Your task to perform on an android device: open app "Reddit" Image 0: 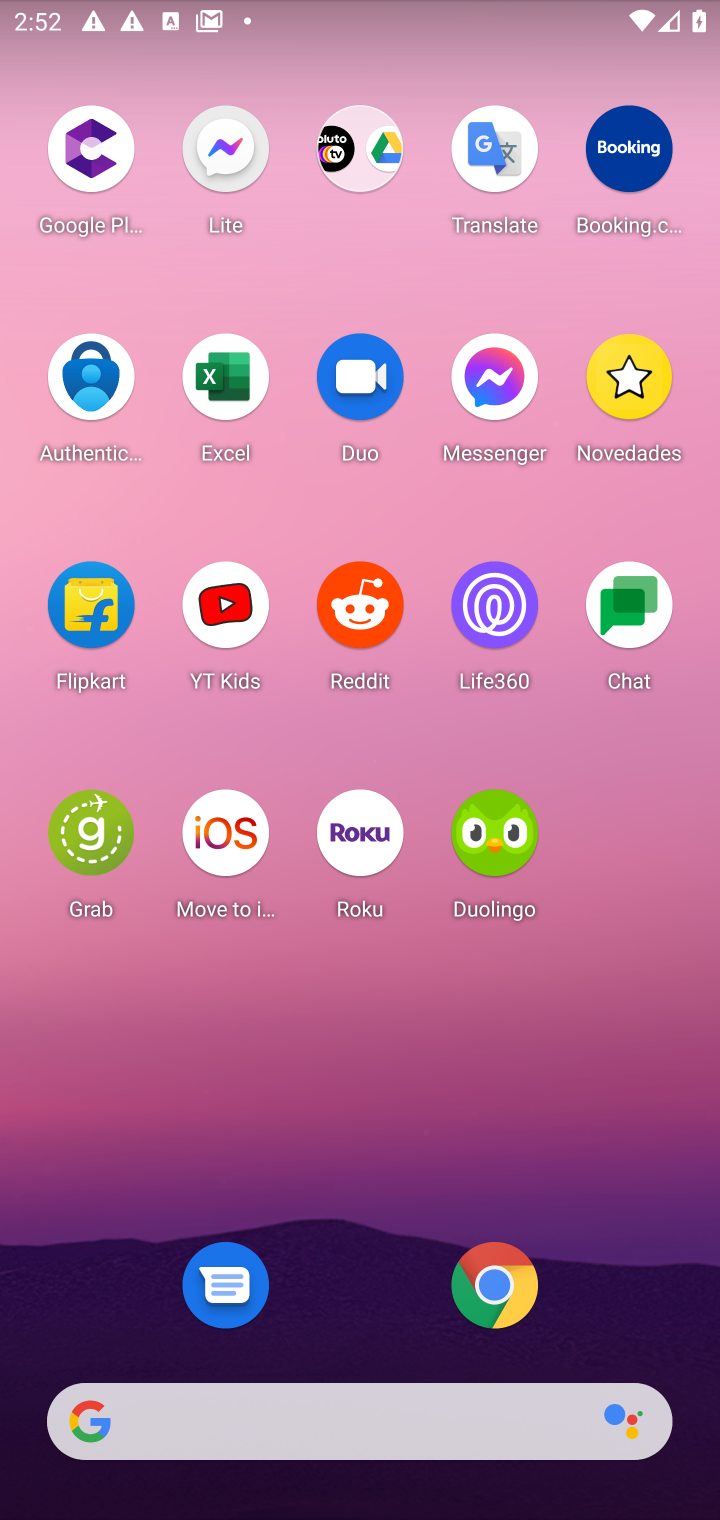
Step 0: drag from (323, 1050) to (275, 77)
Your task to perform on an android device: open app "Reddit" Image 1: 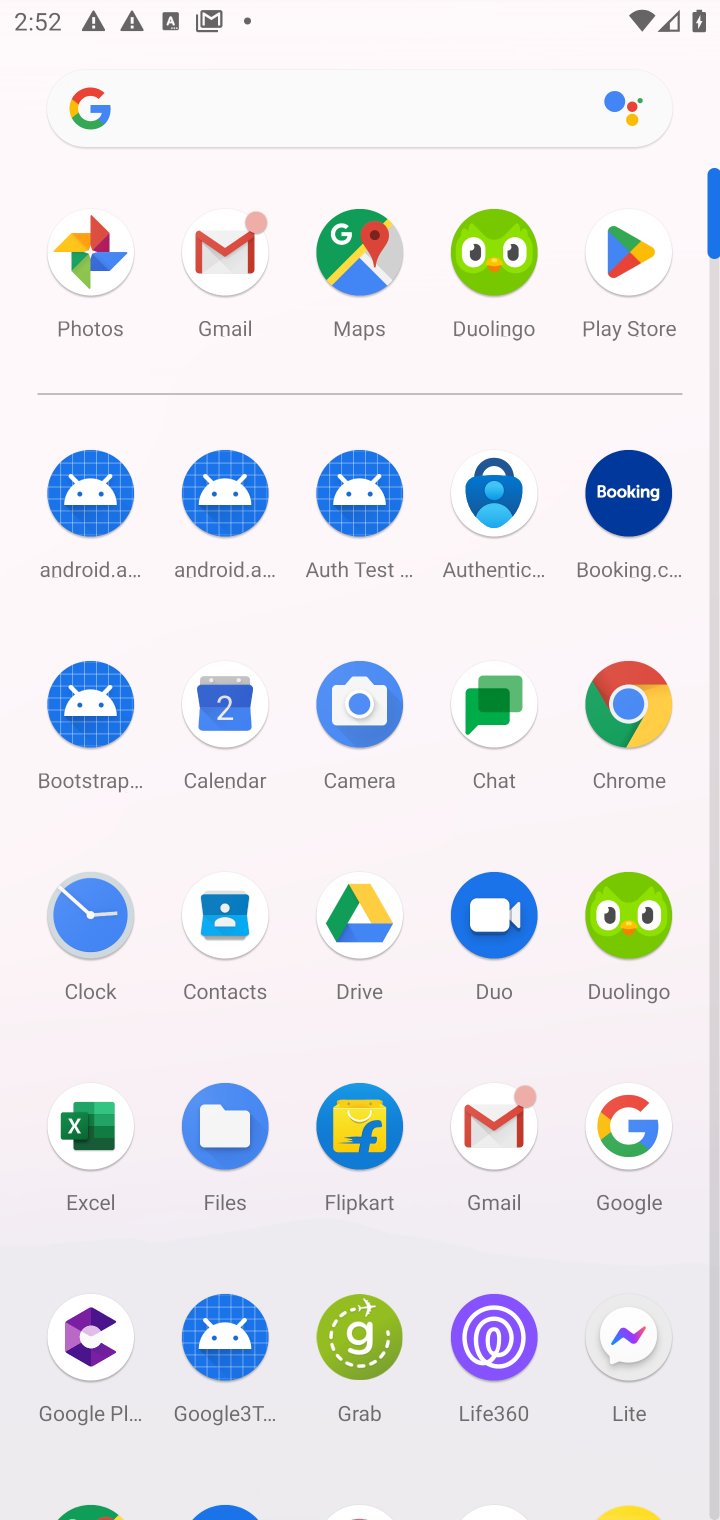
Step 1: drag from (409, 1241) to (447, 226)
Your task to perform on an android device: open app "Reddit" Image 2: 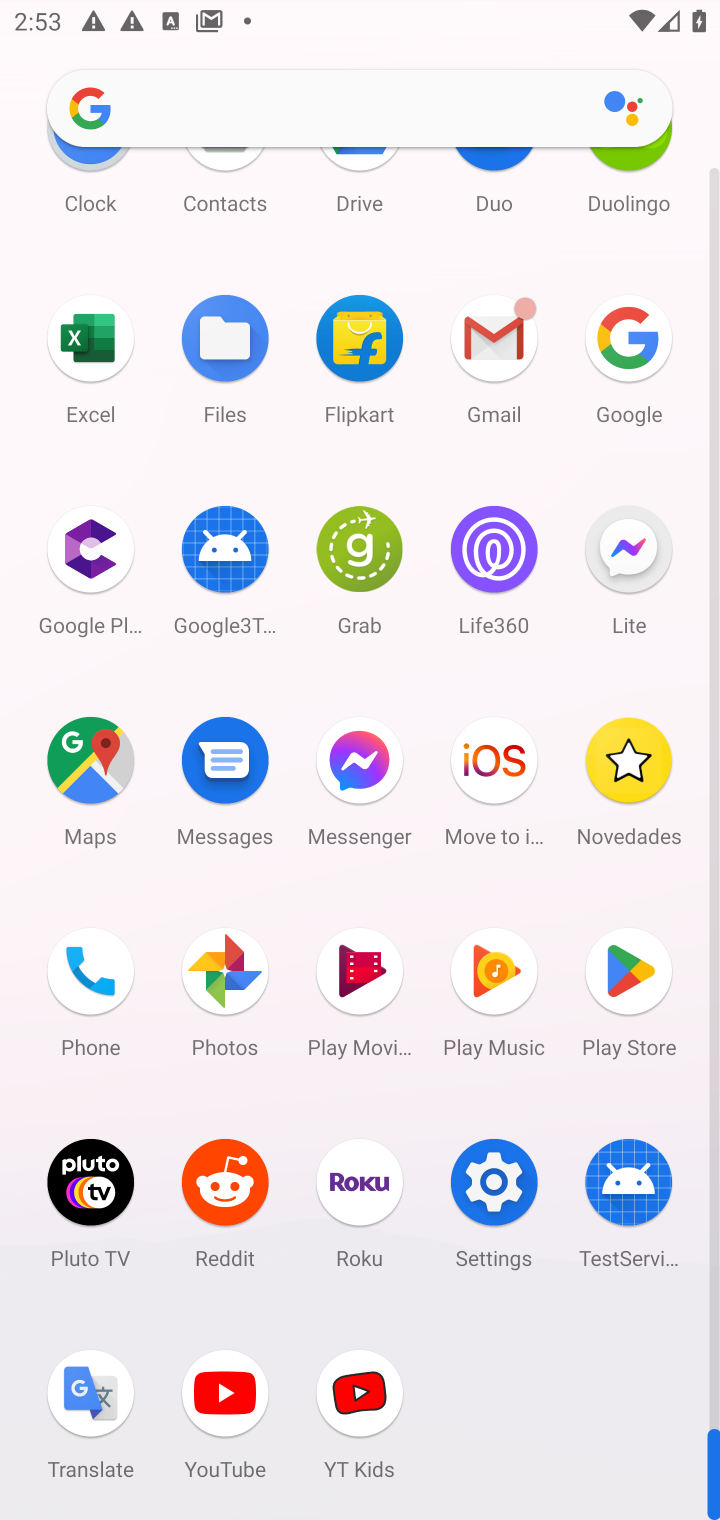
Step 2: click (644, 964)
Your task to perform on an android device: open app "Reddit" Image 3: 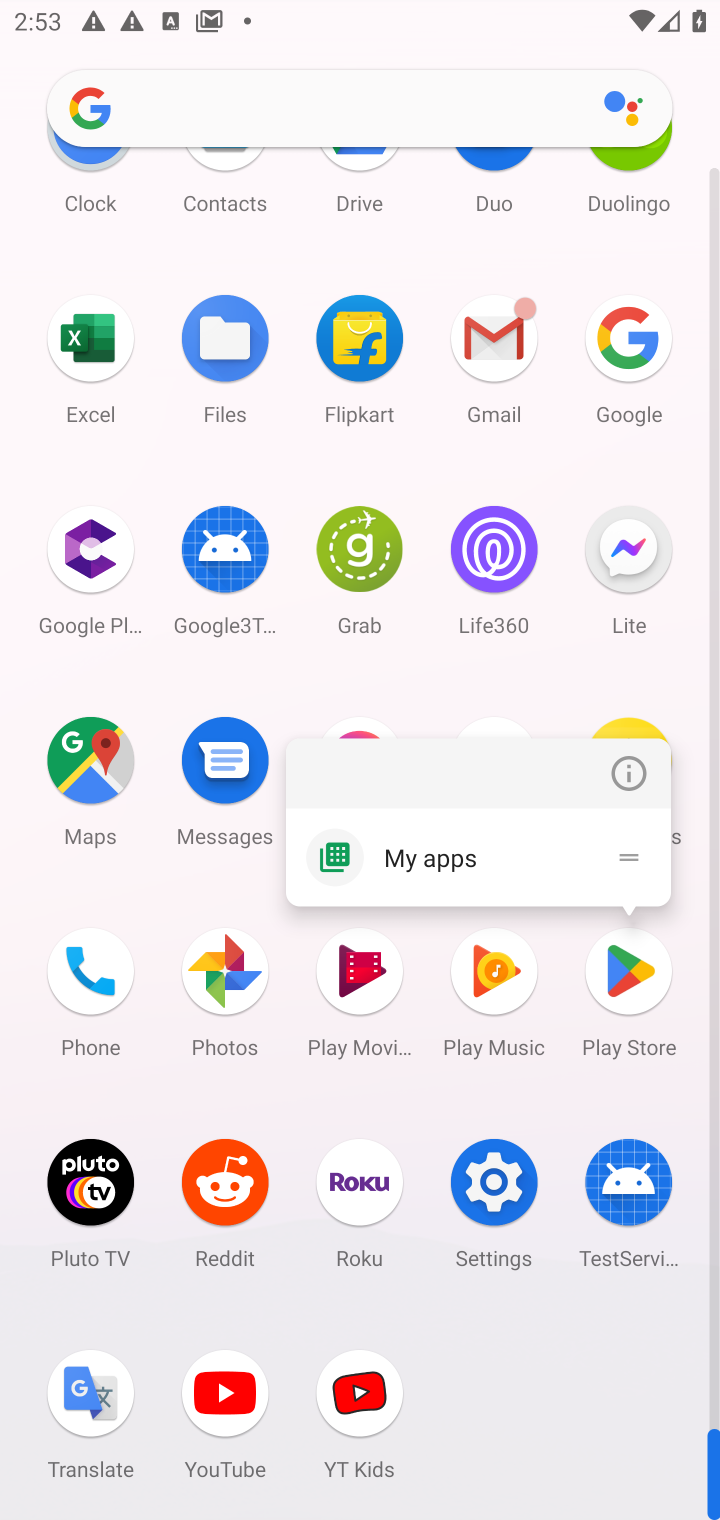
Step 3: click (614, 954)
Your task to perform on an android device: open app "Reddit" Image 4: 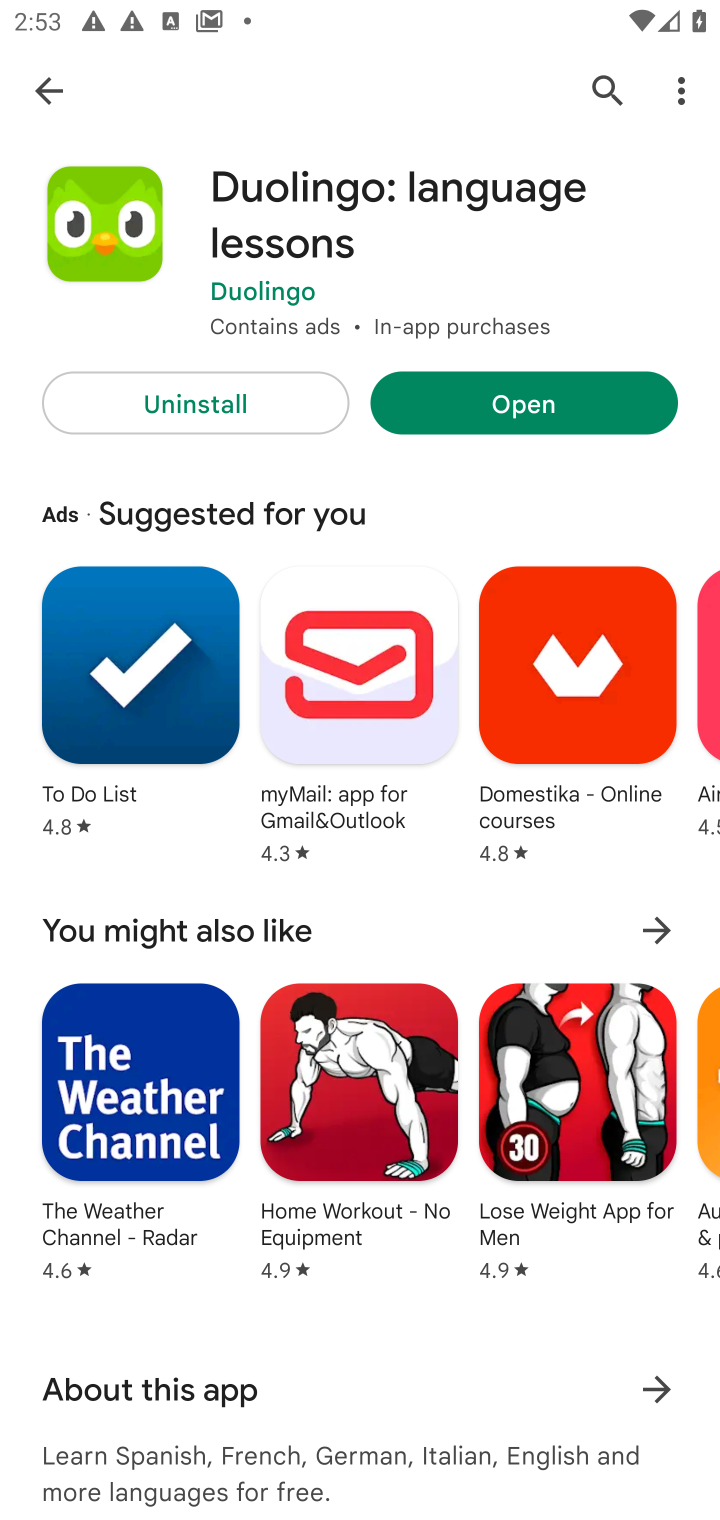
Step 4: click (583, 87)
Your task to perform on an android device: open app "Reddit" Image 5: 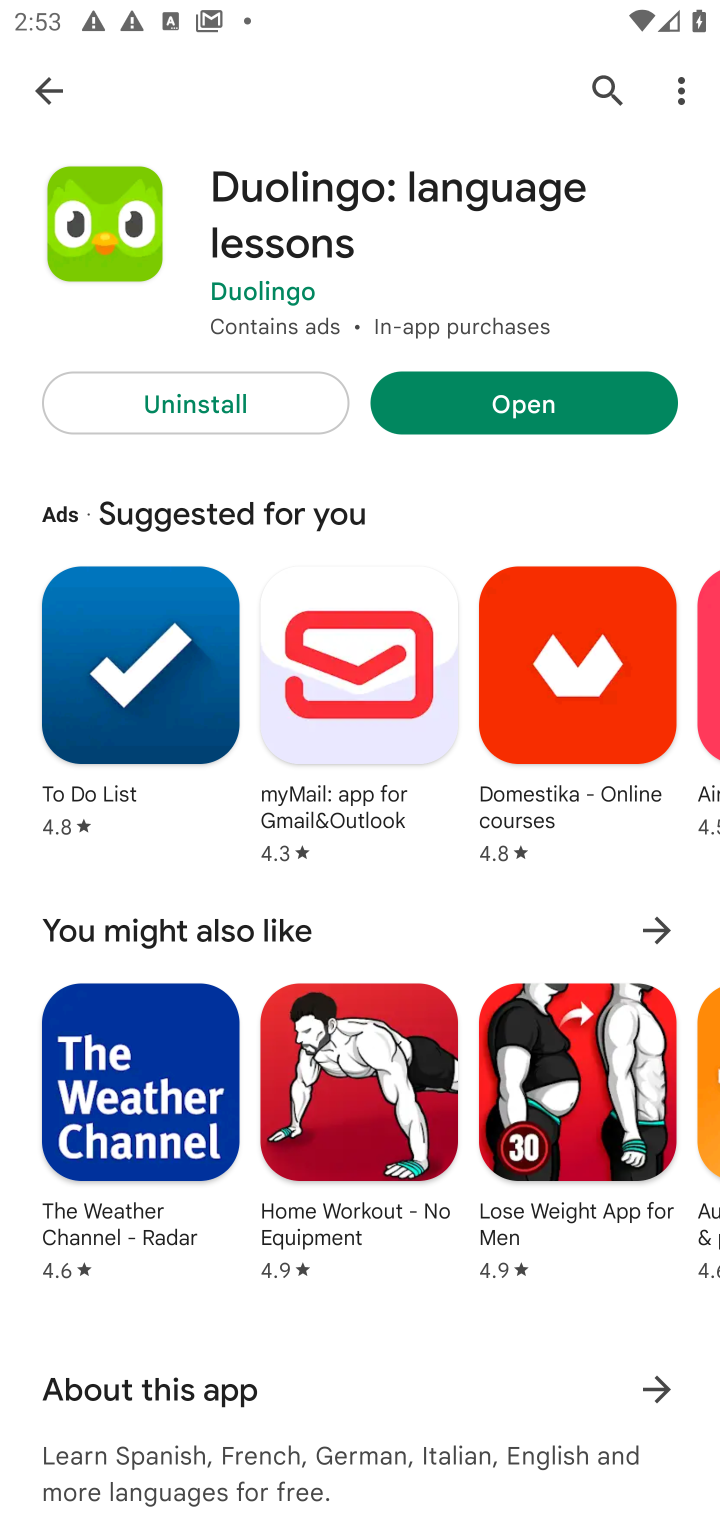
Step 5: press back button
Your task to perform on an android device: open app "Reddit" Image 6: 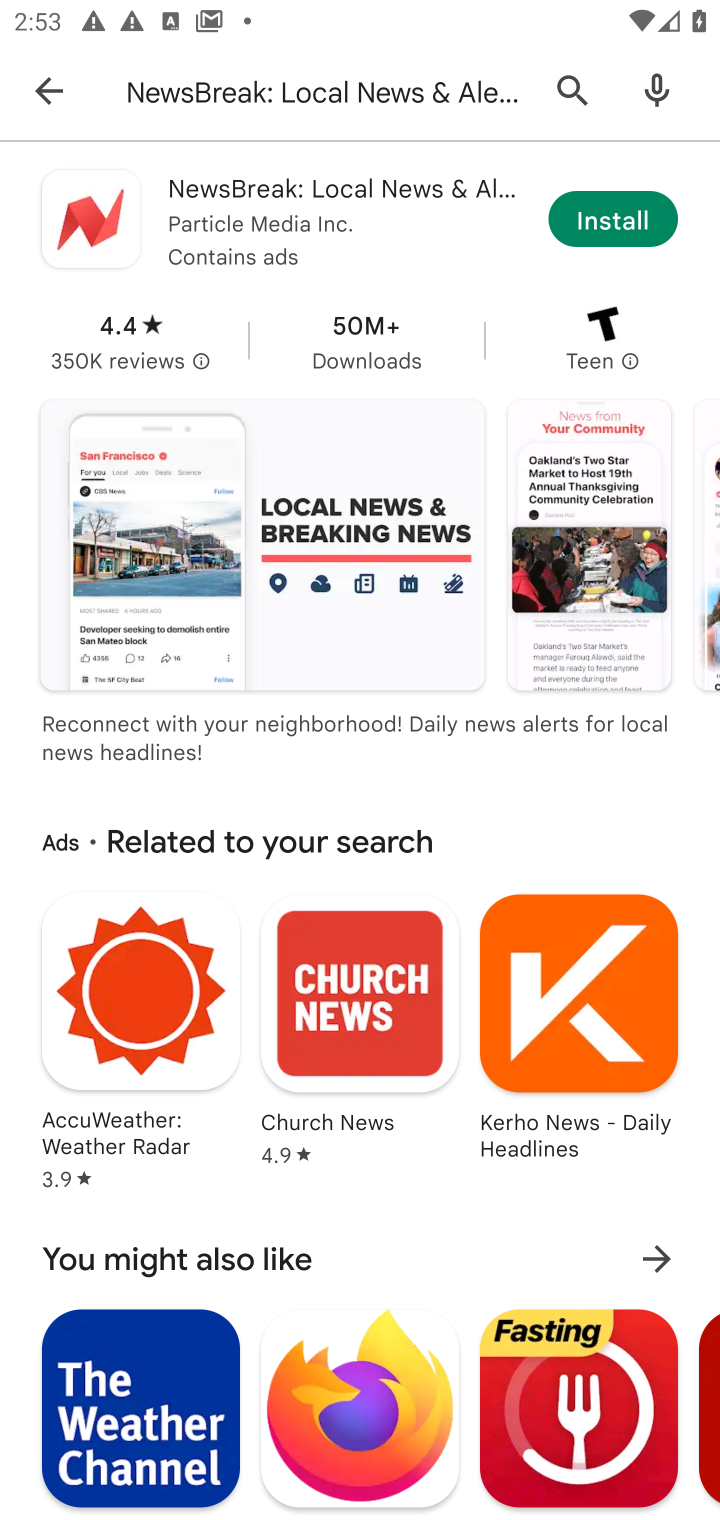
Step 6: click (413, 83)
Your task to perform on an android device: open app "Reddit" Image 7: 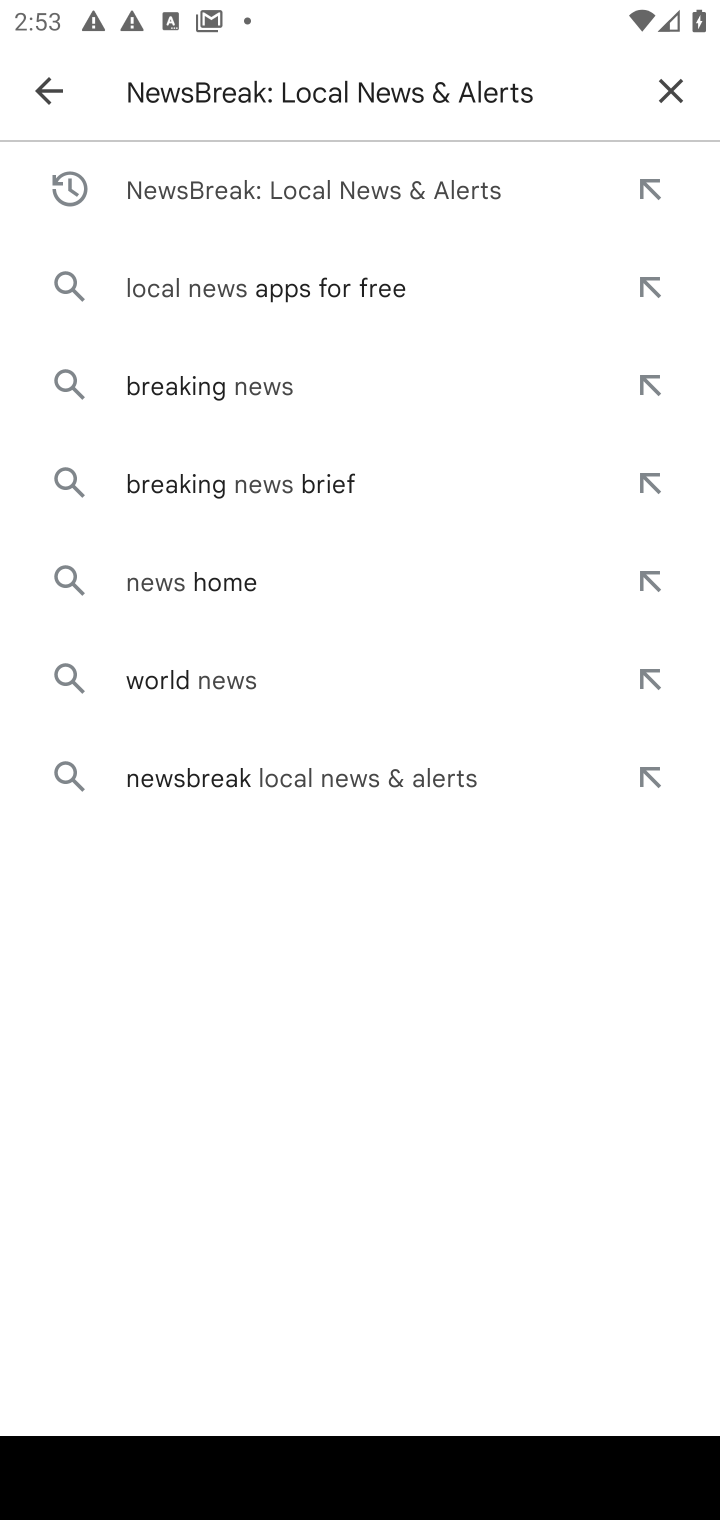
Step 7: click (656, 85)
Your task to perform on an android device: open app "Reddit" Image 8: 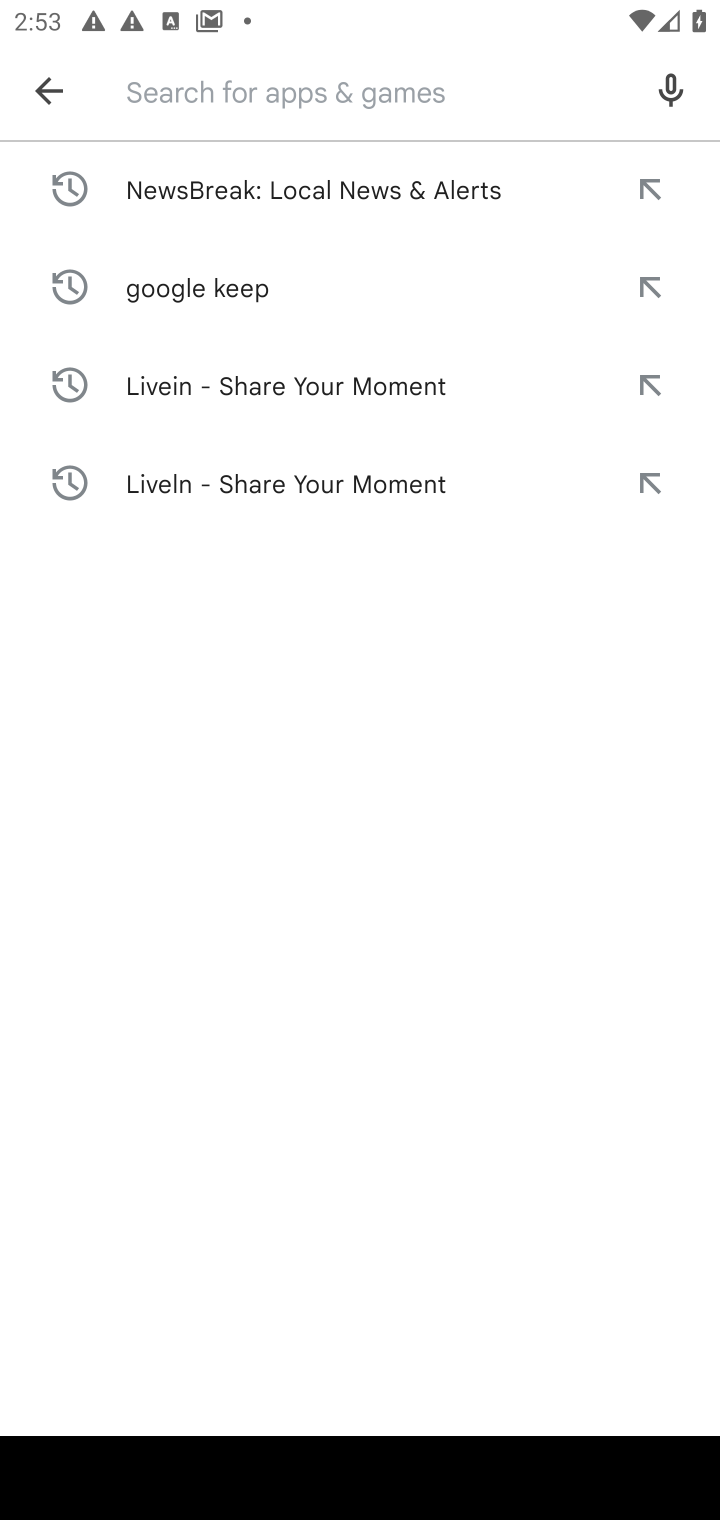
Step 8: type "Reddit"
Your task to perform on an android device: open app "Reddit" Image 9: 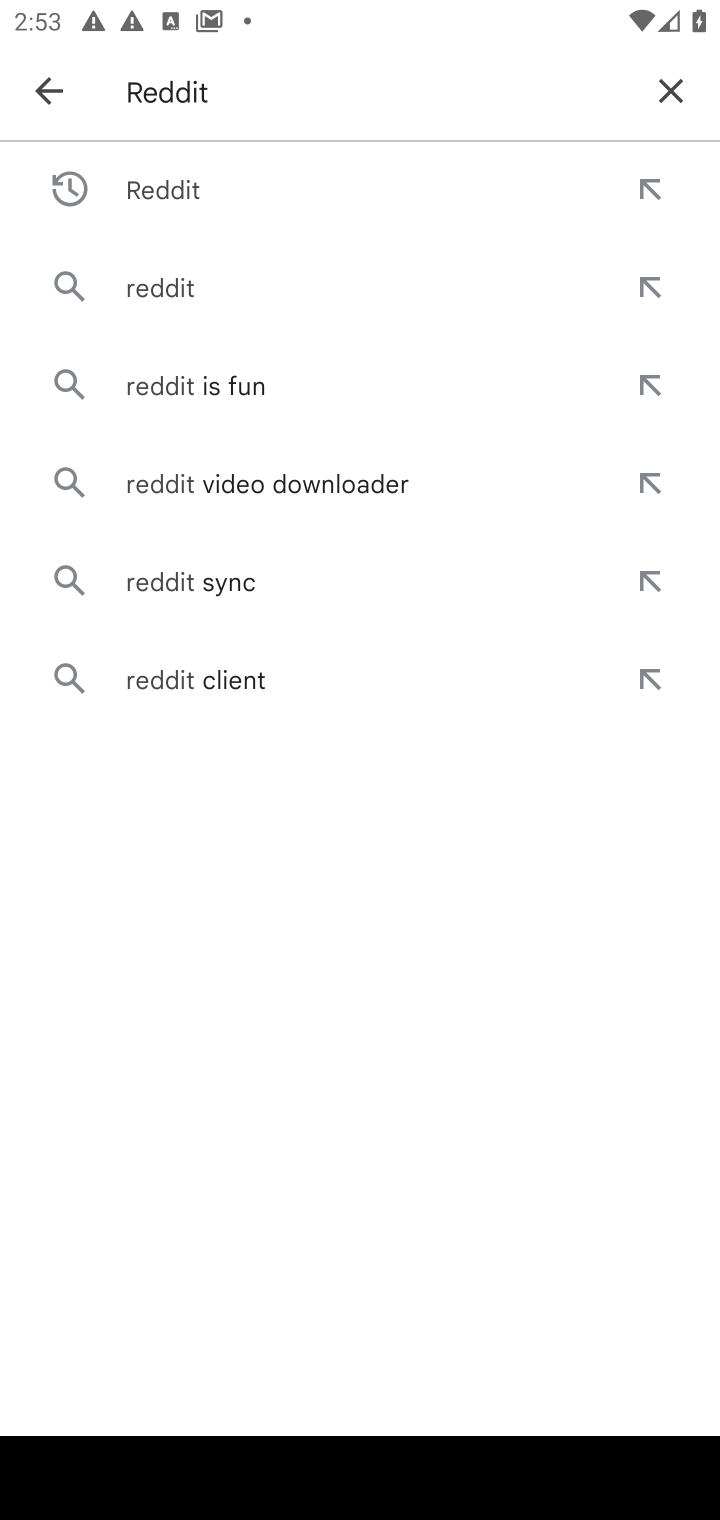
Step 9: click (171, 194)
Your task to perform on an android device: open app "Reddit" Image 10: 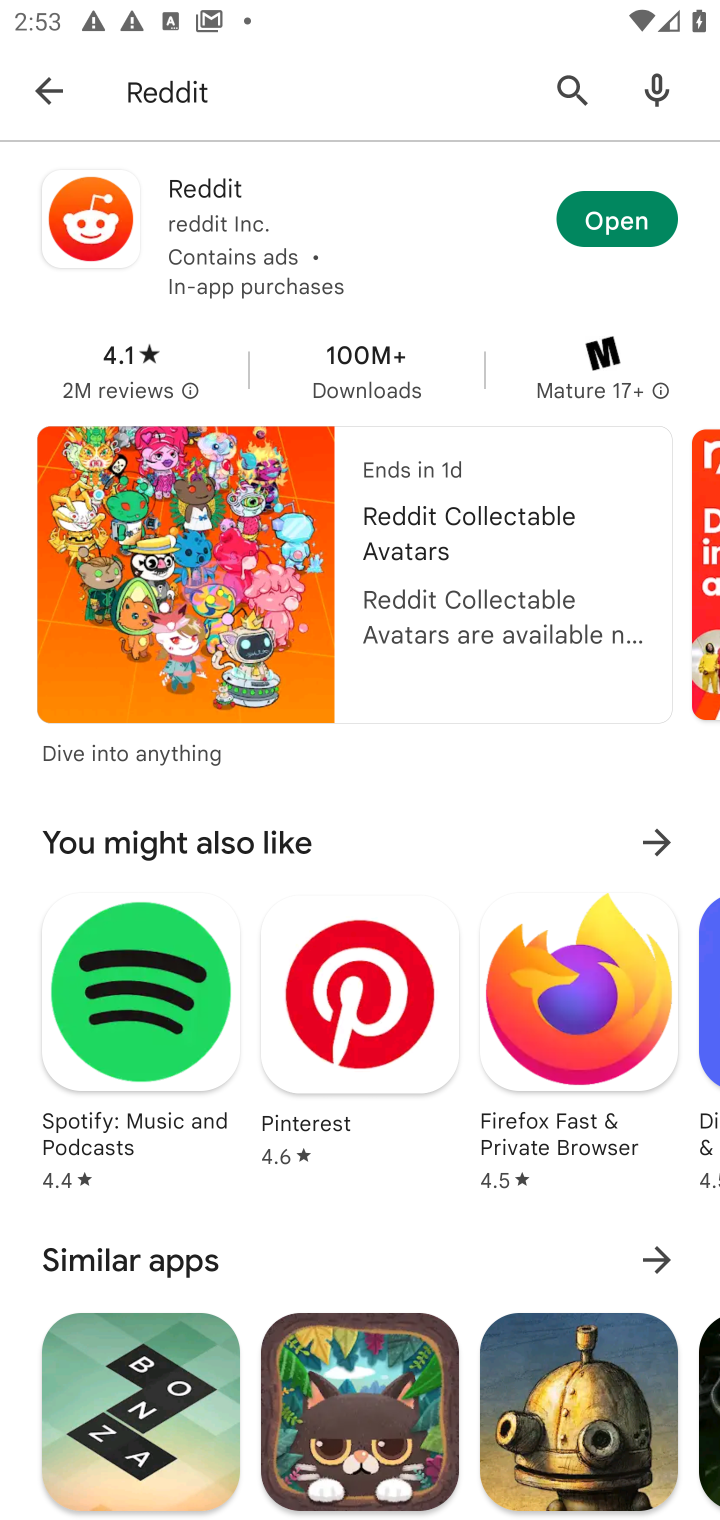
Step 10: click (595, 227)
Your task to perform on an android device: open app "Reddit" Image 11: 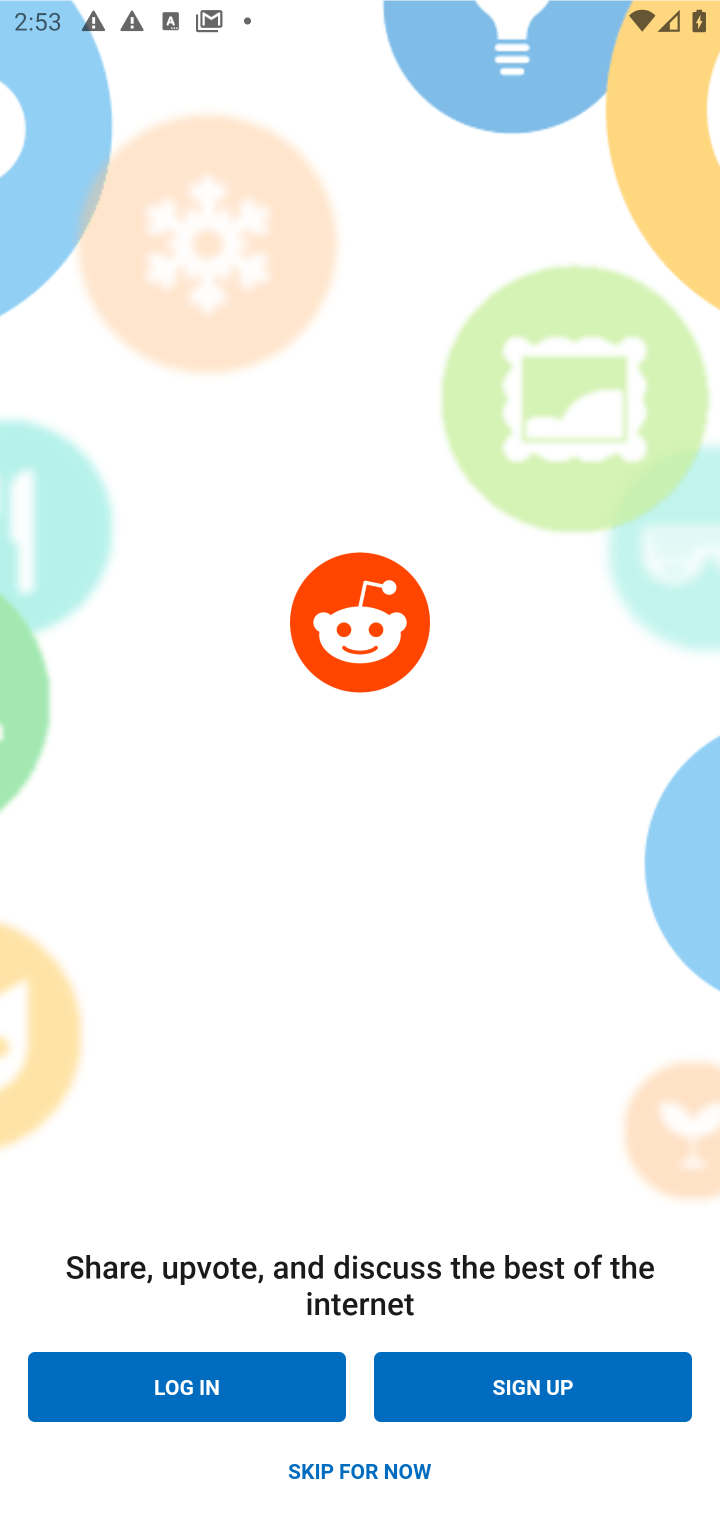
Step 11: task complete